Your task to perform on an android device: Go to notification settings Image 0: 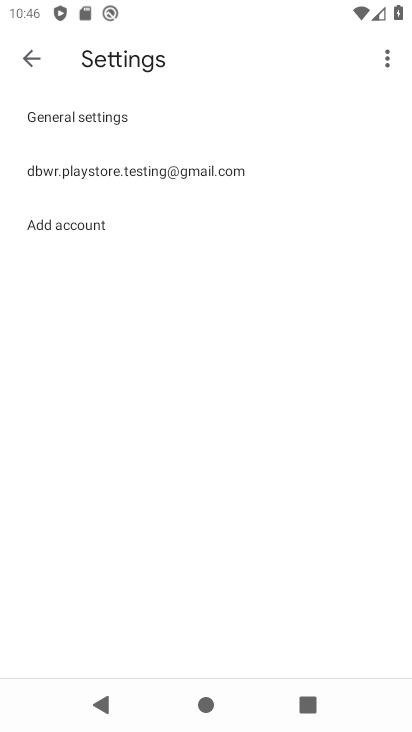
Step 0: press home button
Your task to perform on an android device: Go to notification settings Image 1: 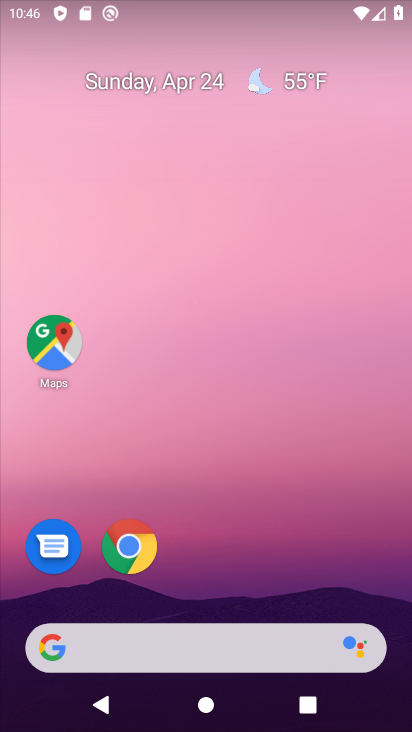
Step 1: drag from (238, 567) to (198, 68)
Your task to perform on an android device: Go to notification settings Image 2: 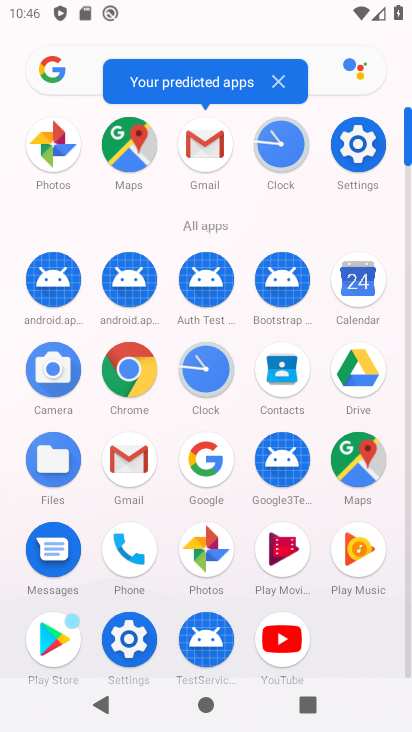
Step 2: click (358, 145)
Your task to perform on an android device: Go to notification settings Image 3: 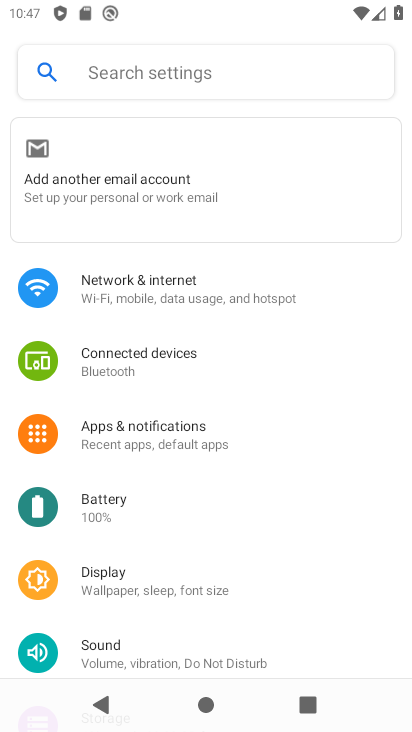
Step 3: click (157, 422)
Your task to perform on an android device: Go to notification settings Image 4: 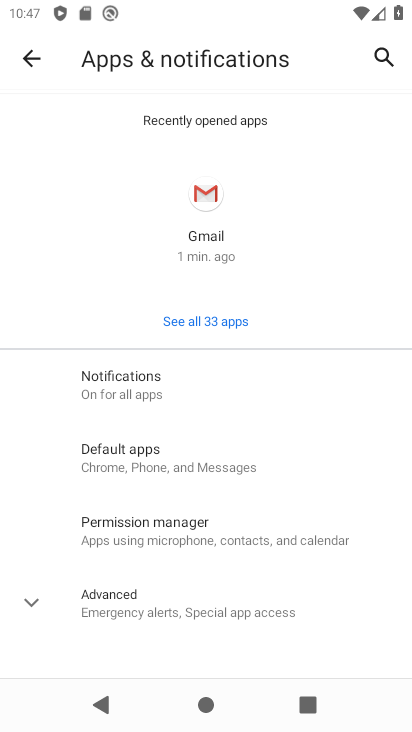
Step 4: click (119, 376)
Your task to perform on an android device: Go to notification settings Image 5: 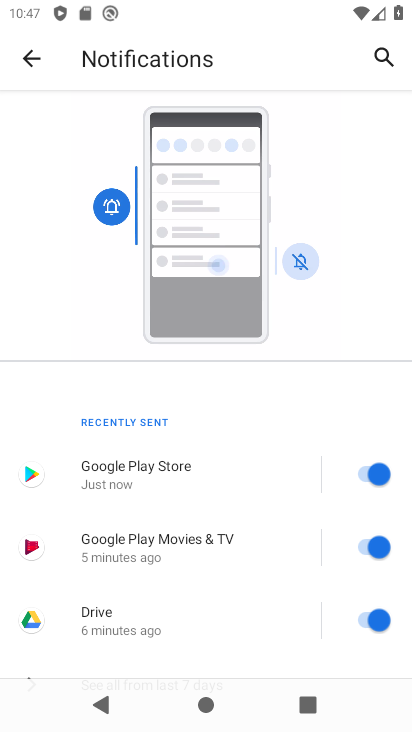
Step 5: task complete